Your task to perform on an android device: Open the calendar and show me this week's events Image 0: 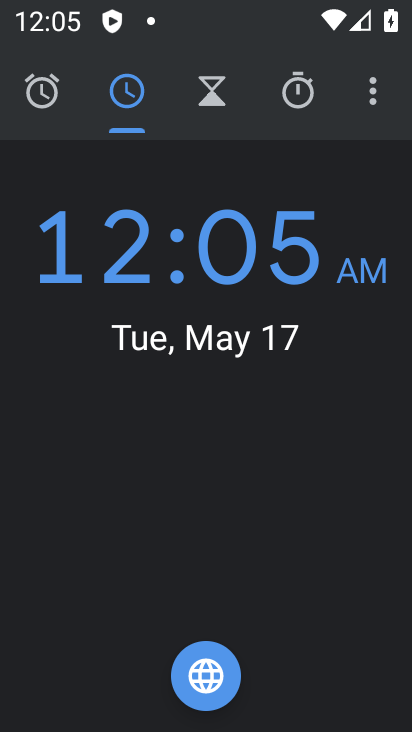
Step 0: press home button
Your task to perform on an android device: Open the calendar and show me this week's events Image 1: 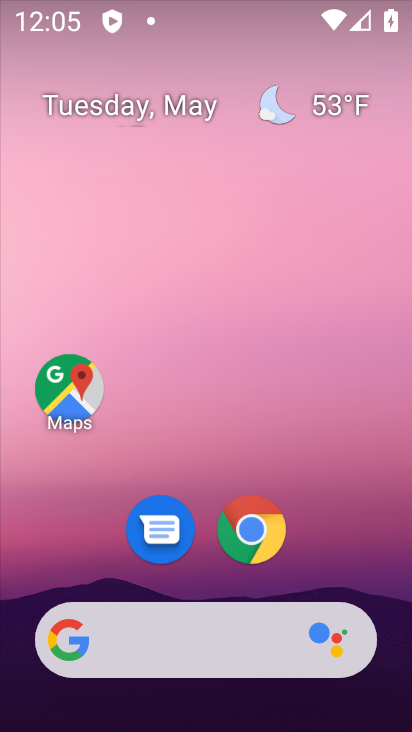
Step 1: click (185, 104)
Your task to perform on an android device: Open the calendar and show me this week's events Image 2: 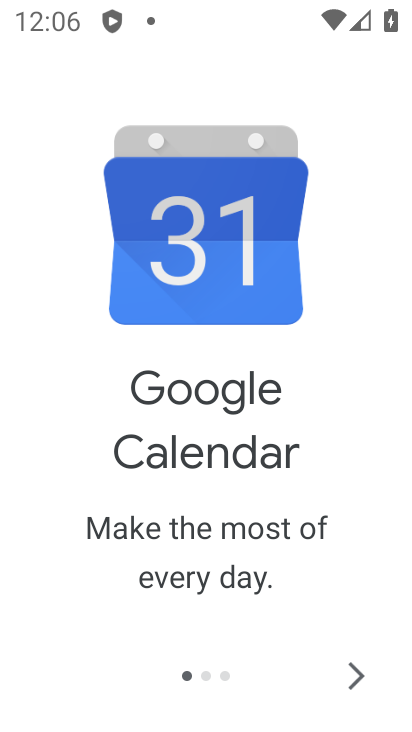
Step 2: click (357, 687)
Your task to perform on an android device: Open the calendar and show me this week's events Image 3: 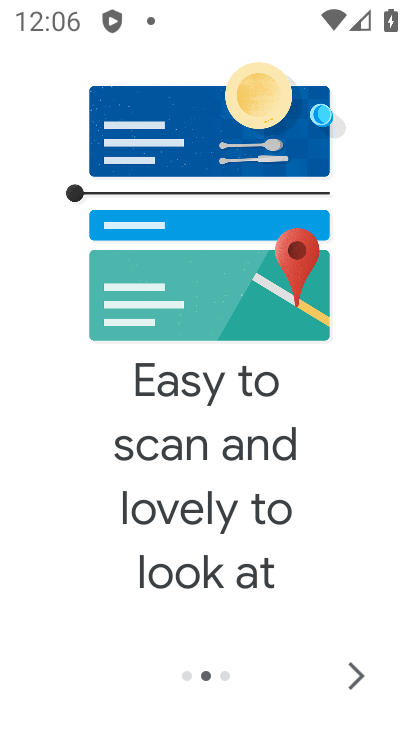
Step 3: click (357, 687)
Your task to perform on an android device: Open the calendar and show me this week's events Image 4: 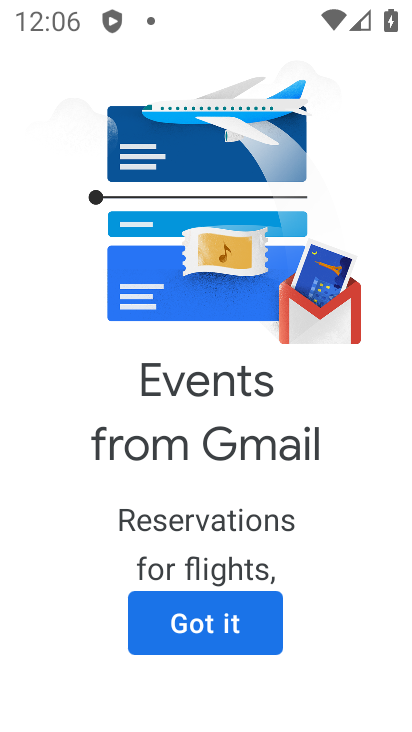
Step 4: click (357, 687)
Your task to perform on an android device: Open the calendar and show me this week's events Image 5: 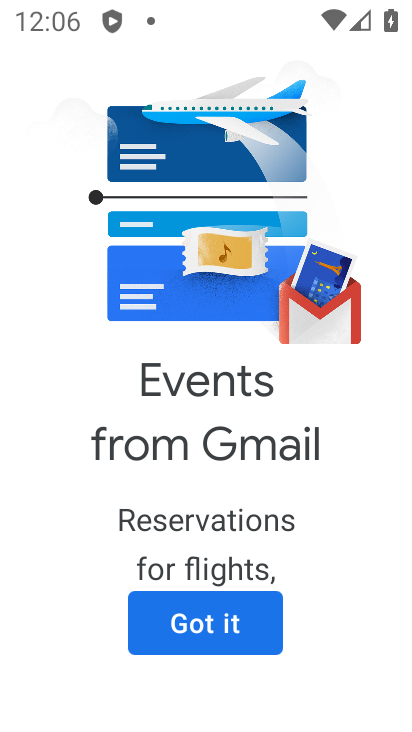
Step 5: click (241, 629)
Your task to perform on an android device: Open the calendar and show me this week's events Image 6: 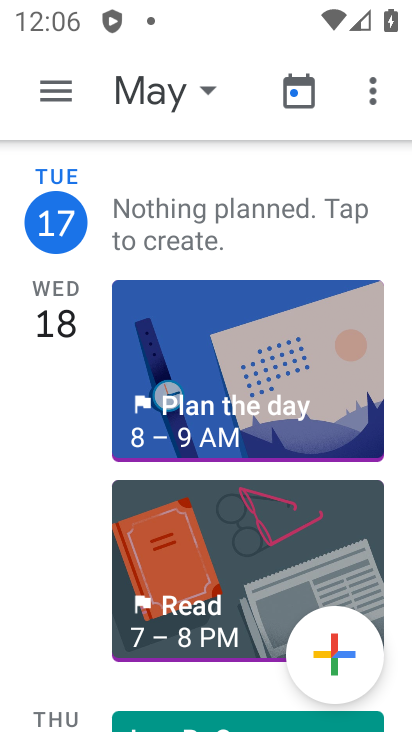
Step 6: task complete